Your task to perform on an android device: create a new album in the google photos Image 0: 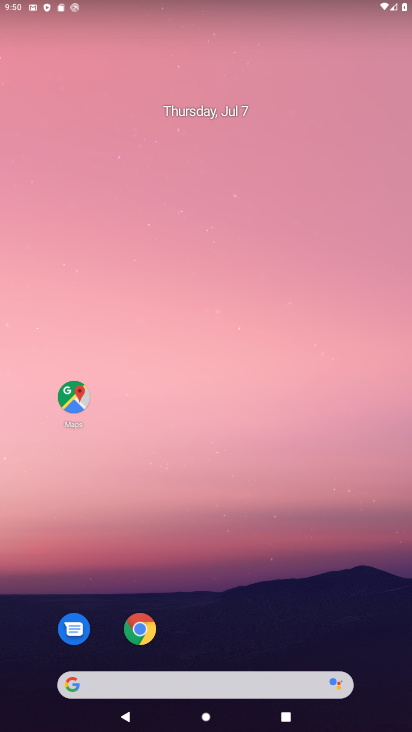
Step 0: press home button
Your task to perform on an android device: create a new album in the google photos Image 1: 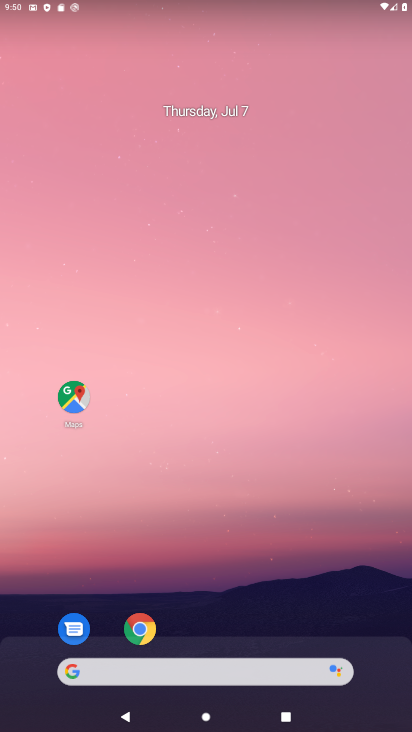
Step 1: drag from (258, 588) to (172, 107)
Your task to perform on an android device: create a new album in the google photos Image 2: 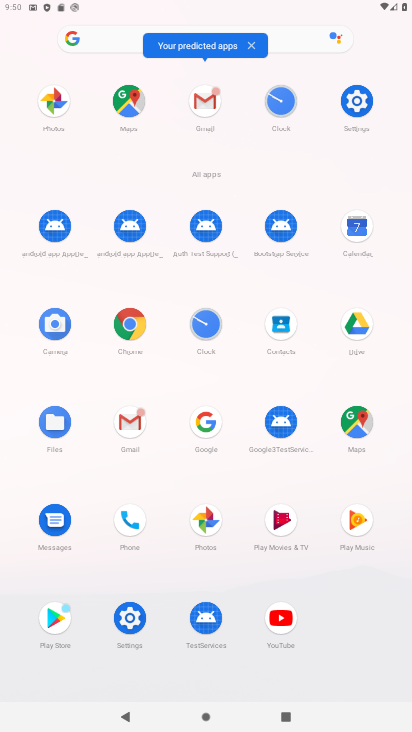
Step 2: click (205, 520)
Your task to perform on an android device: create a new album in the google photos Image 3: 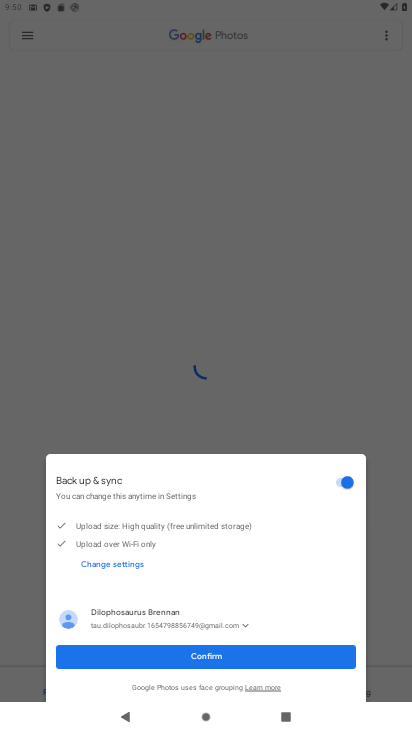
Step 3: click (236, 664)
Your task to perform on an android device: create a new album in the google photos Image 4: 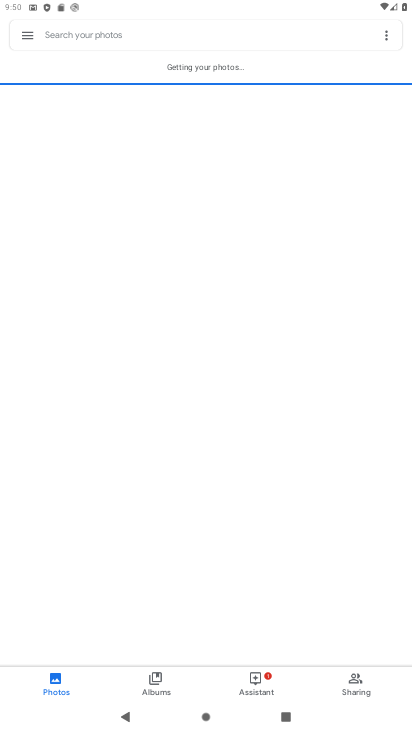
Step 4: click (51, 679)
Your task to perform on an android device: create a new album in the google photos Image 5: 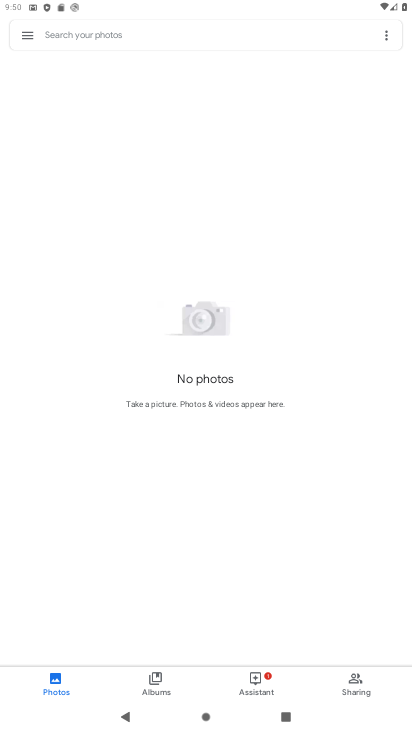
Step 5: task complete